Your task to perform on an android device: Open Maps and search for coffee Image 0: 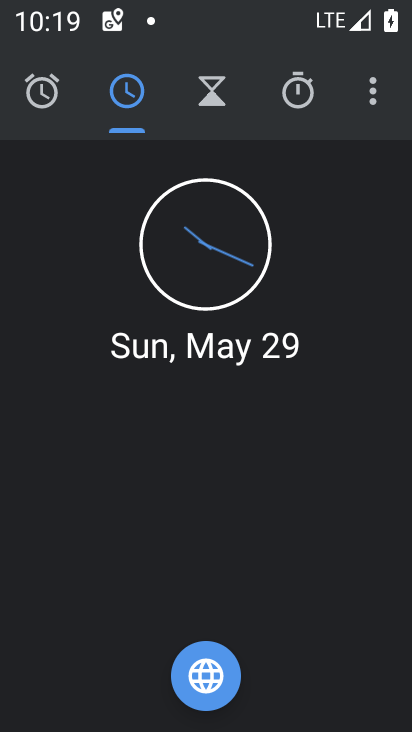
Step 0: press home button
Your task to perform on an android device: Open Maps and search for coffee Image 1: 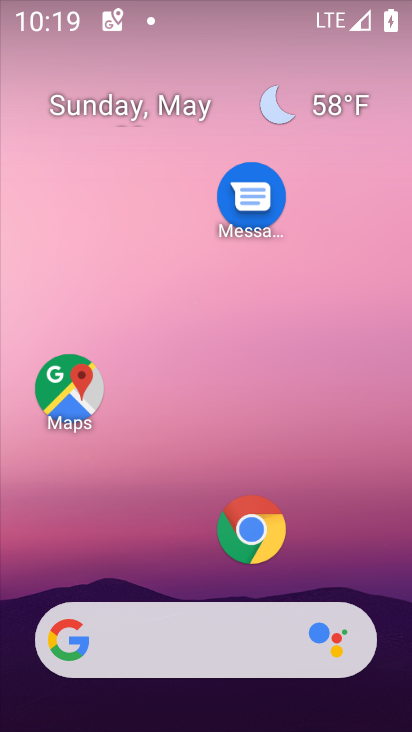
Step 1: click (61, 379)
Your task to perform on an android device: Open Maps and search for coffee Image 2: 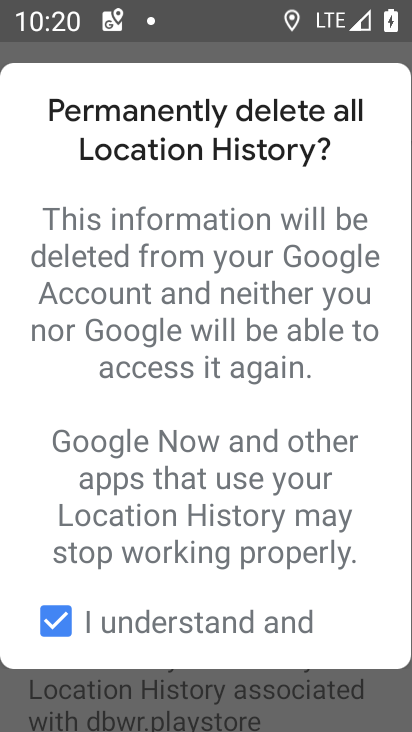
Step 2: press home button
Your task to perform on an android device: Open Maps and search for coffee Image 3: 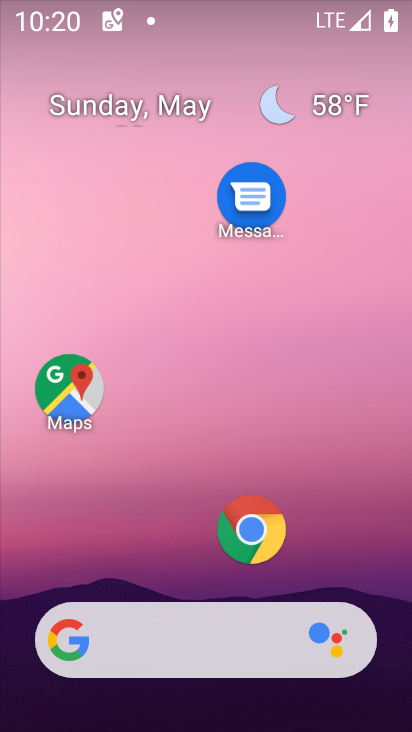
Step 3: press back button
Your task to perform on an android device: Open Maps and search for coffee Image 4: 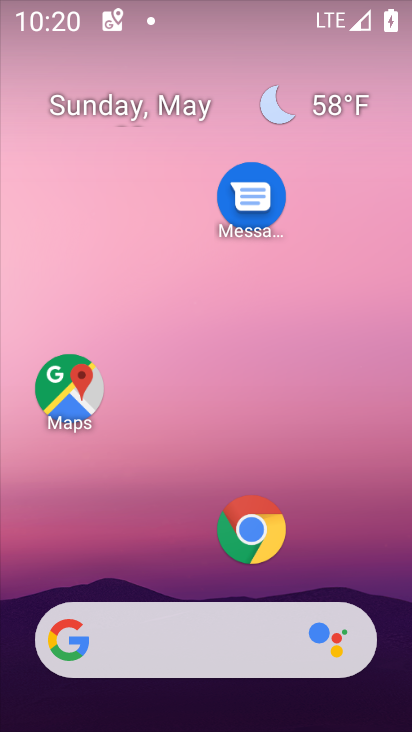
Step 4: click (91, 383)
Your task to perform on an android device: Open Maps and search for coffee Image 5: 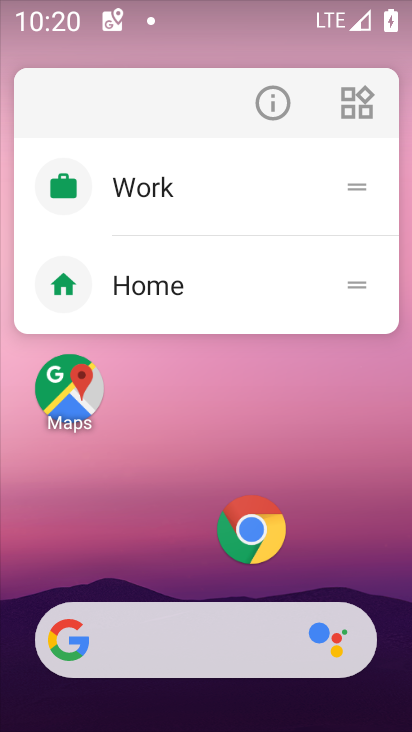
Step 5: click (73, 405)
Your task to perform on an android device: Open Maps and search for coffee Image 6: 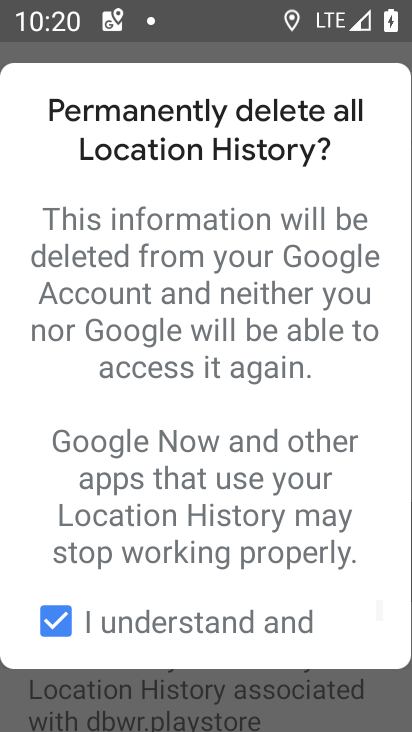
Step 6: press back button
Your task to perform on an android device: Open Maps and search for coffee Image 7: 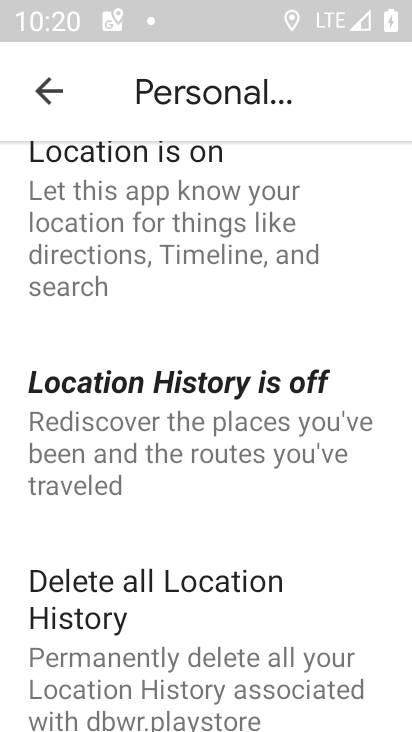
Step 7: click (42, 76)
Your task to perform on an android device: Open Maps and search for coffee Image 8: 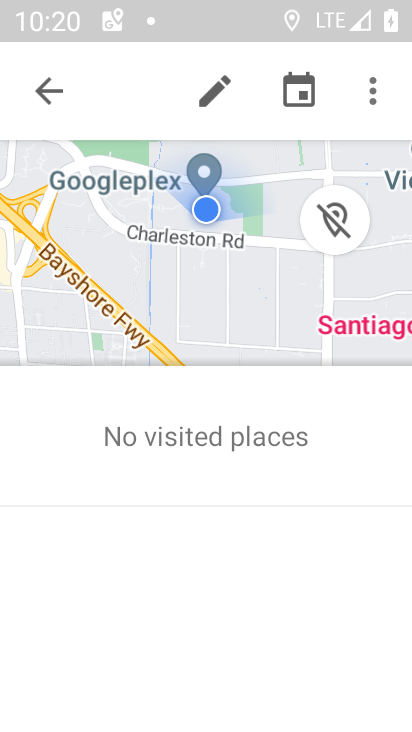
Step 8: click (45, 93)
Your task to perform on an android device: Open Maps and search for coffee Image 9: 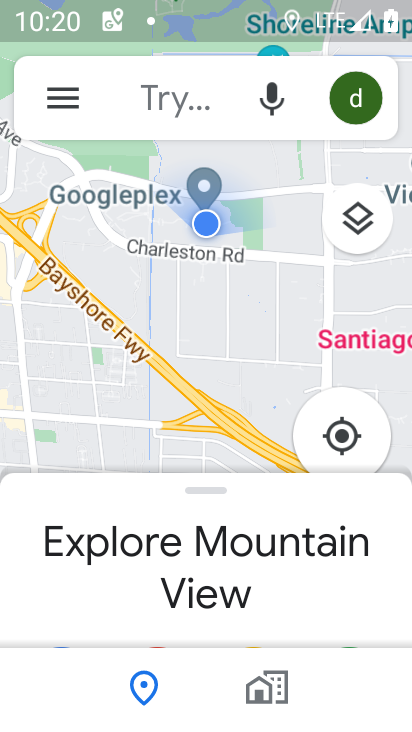
Step 9: click (161, 119)
Your task to perform on an android device: Open Maps and search for coffee Image 10: 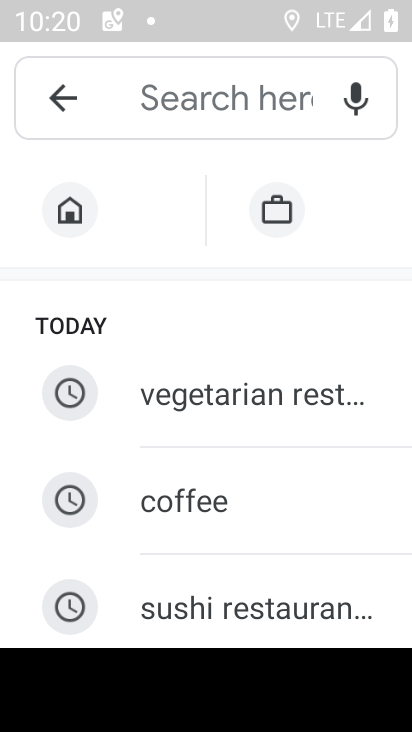
Step 10: type "coffee"
Your task to perform on an android device: Open Maps and search for coffee Image 11: 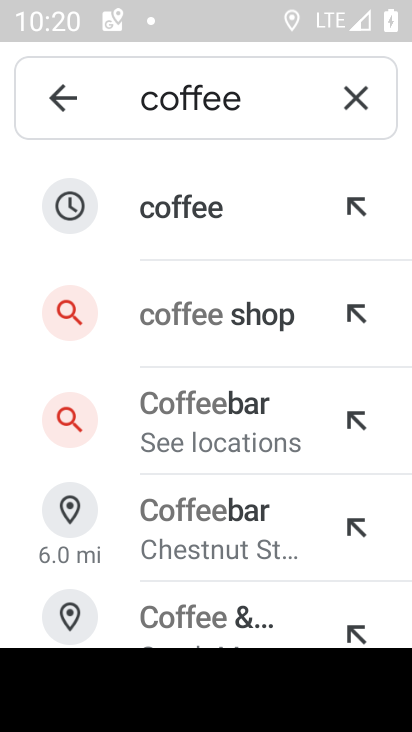
Step 11: click (195, 198)
Your task to perform on an android device: Open Maps and search for coffee Image 12: 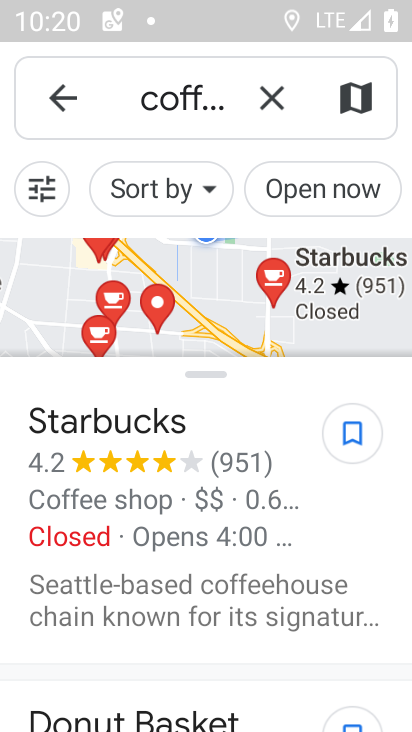
Step 12: task complete